Your task to perform on an android device: Open settings on Google Maps Image 0: 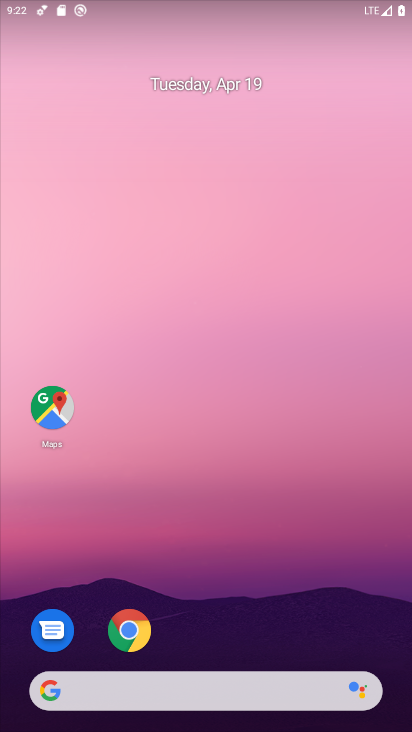
Step 0: drag from (278, 676) to (342, 167)
Your task to perform on an android device: Open settings on Google Maps Image 1: 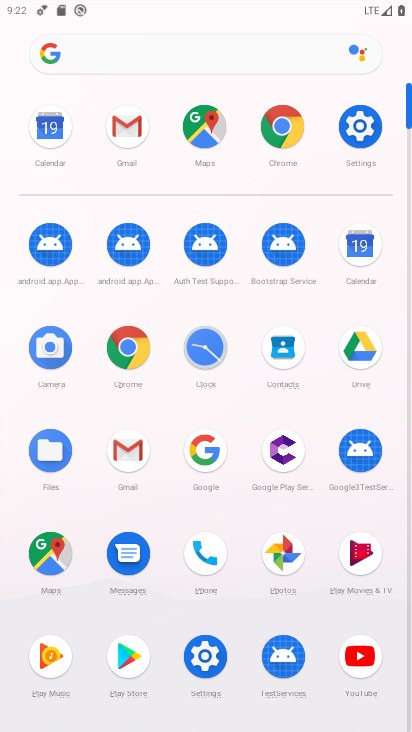
Step 1: click (48, 549)
Your task to perform on an android device: Open settings on Google Maps Image 2: 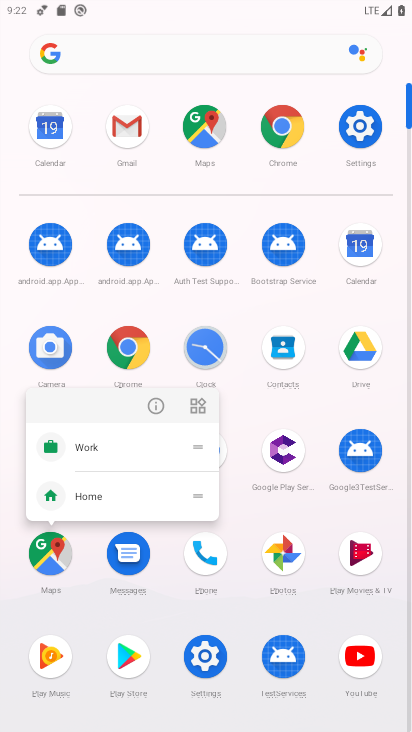
Step 2: click (53, 564)
Your task to perform on an android device: Open settings on Google Maps Image 3: 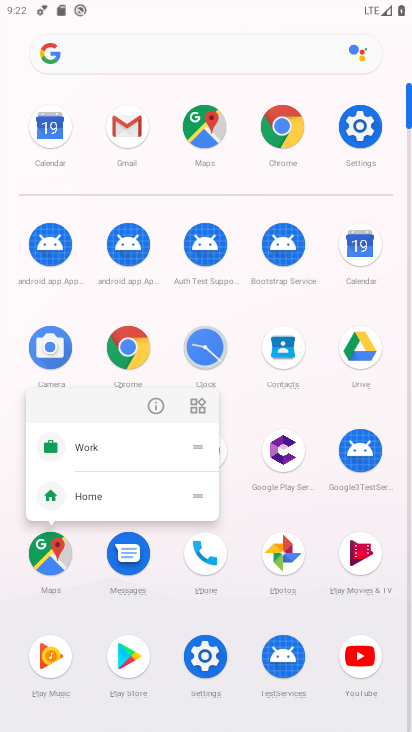
Step 3: click (53, 564)
Your task to perform on an android device: Open settings on Google Maps Image 4: 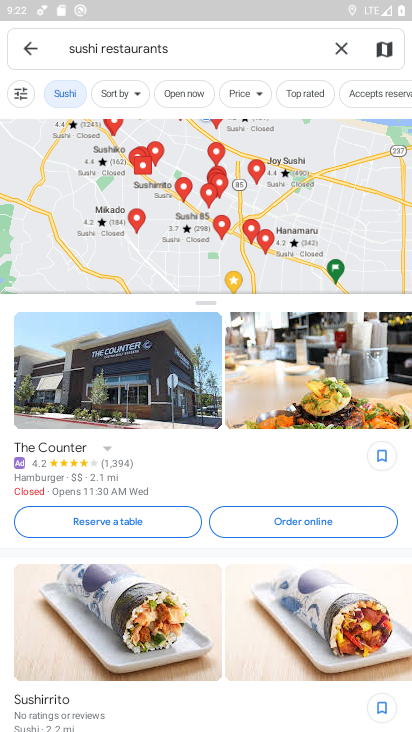
Step 4: click (38, 53)
Your task to perform on an android device: Open settings on Google Maps Image 5: 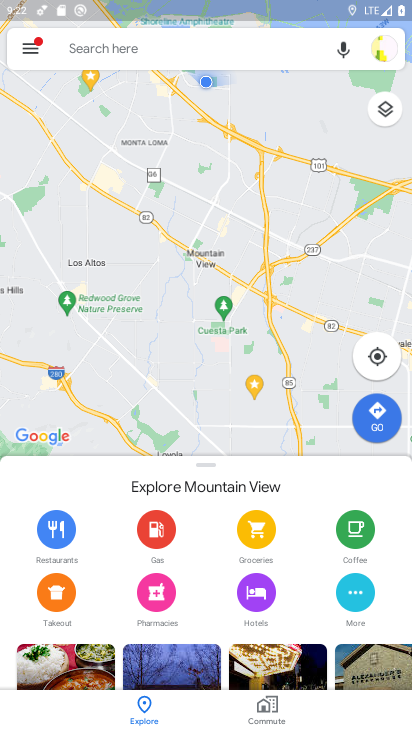
Step 5: click (38, 53)
Your task to perform on an android device: Open settings on Google Maps Image 6: 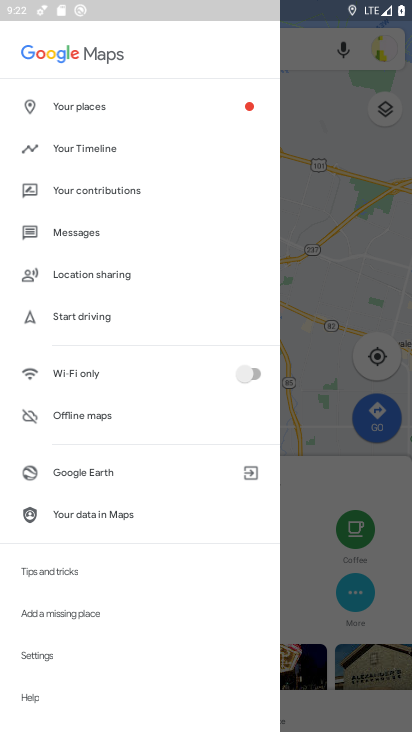
Step 6: drag from (100, 629) to (163, 419)
Your task to perform on an android device: Open settings on Google Maps Image 7: 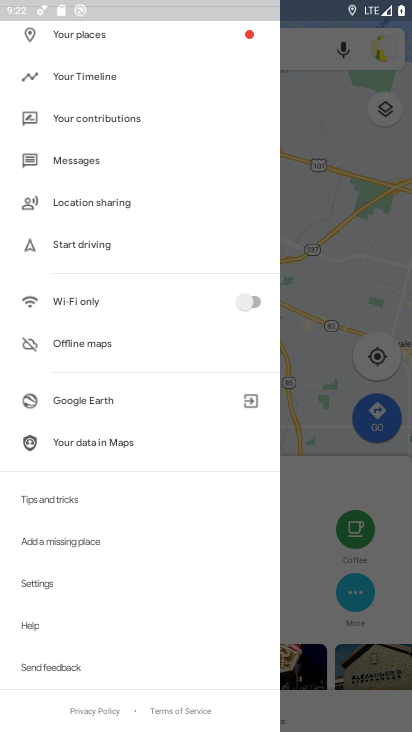
Step 7: click (93, 579)
Your task to perform on an android device: Open settings on Google Maps Image 8: 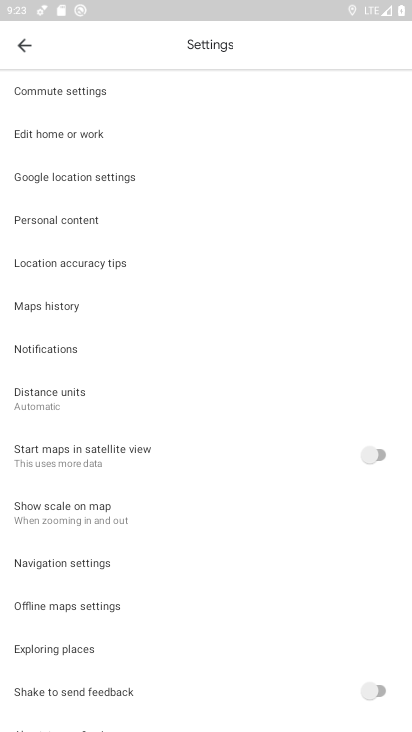
Step 8: task complete